Your task to perform on an android device: What's the news? Image 0: 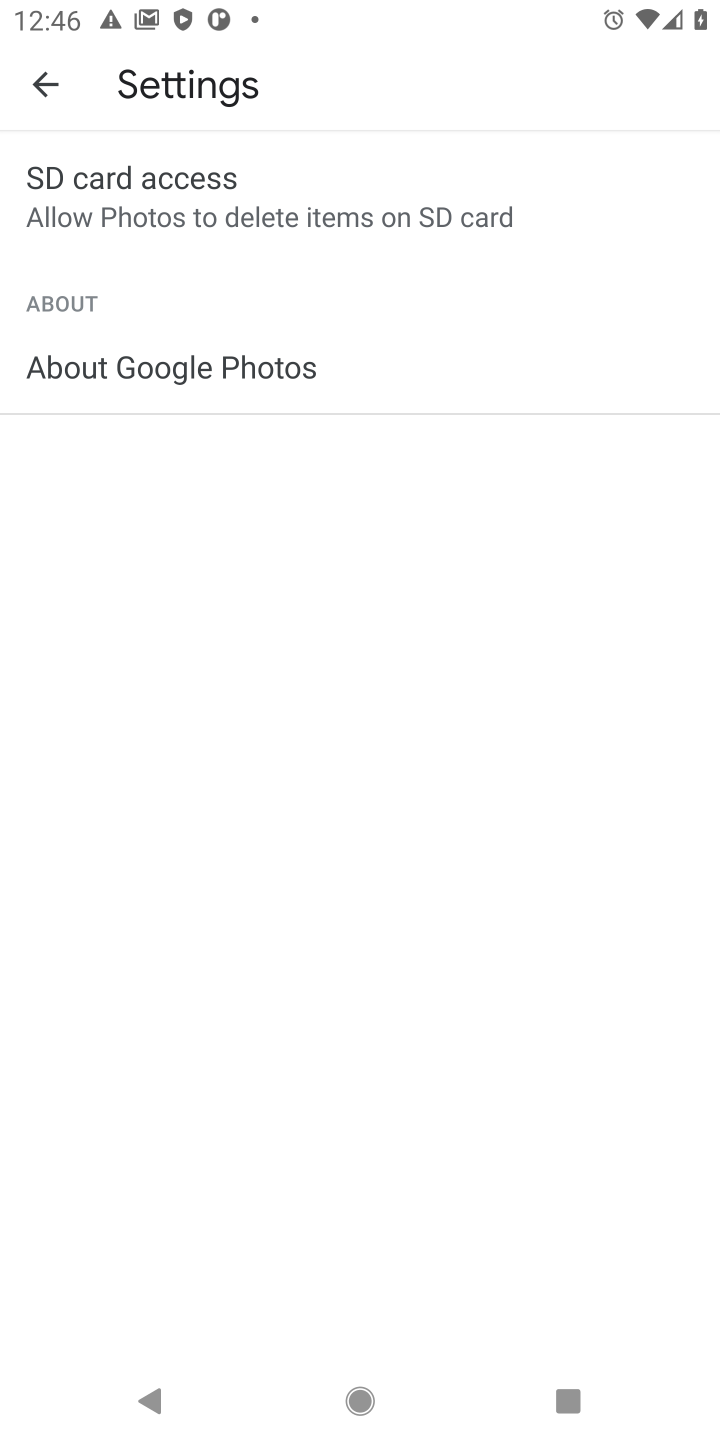
Step 0: press home button
Your task to perform on an android device: What's the news? Image 1: 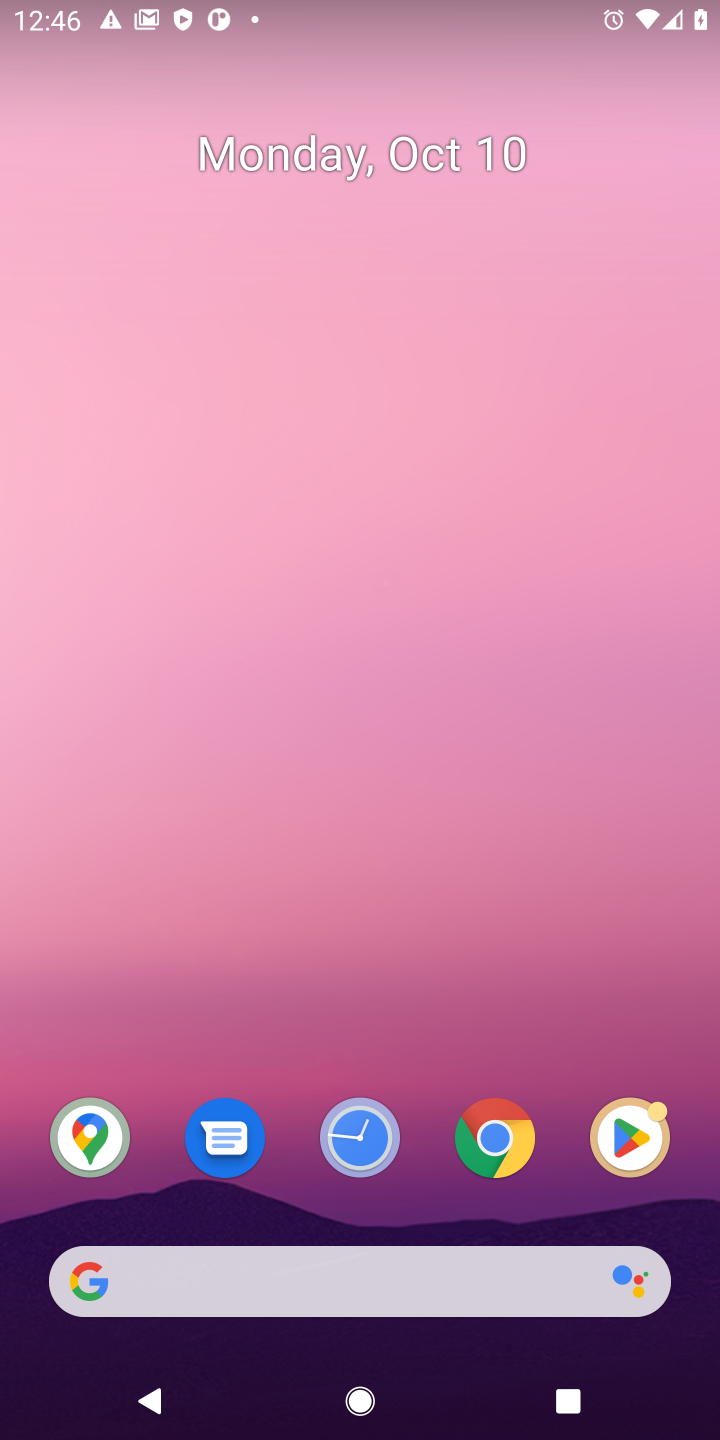
Step 1: drag from (398, 945) to (320, 44)
Your task to perform on an android device: What's the news? Image 2: 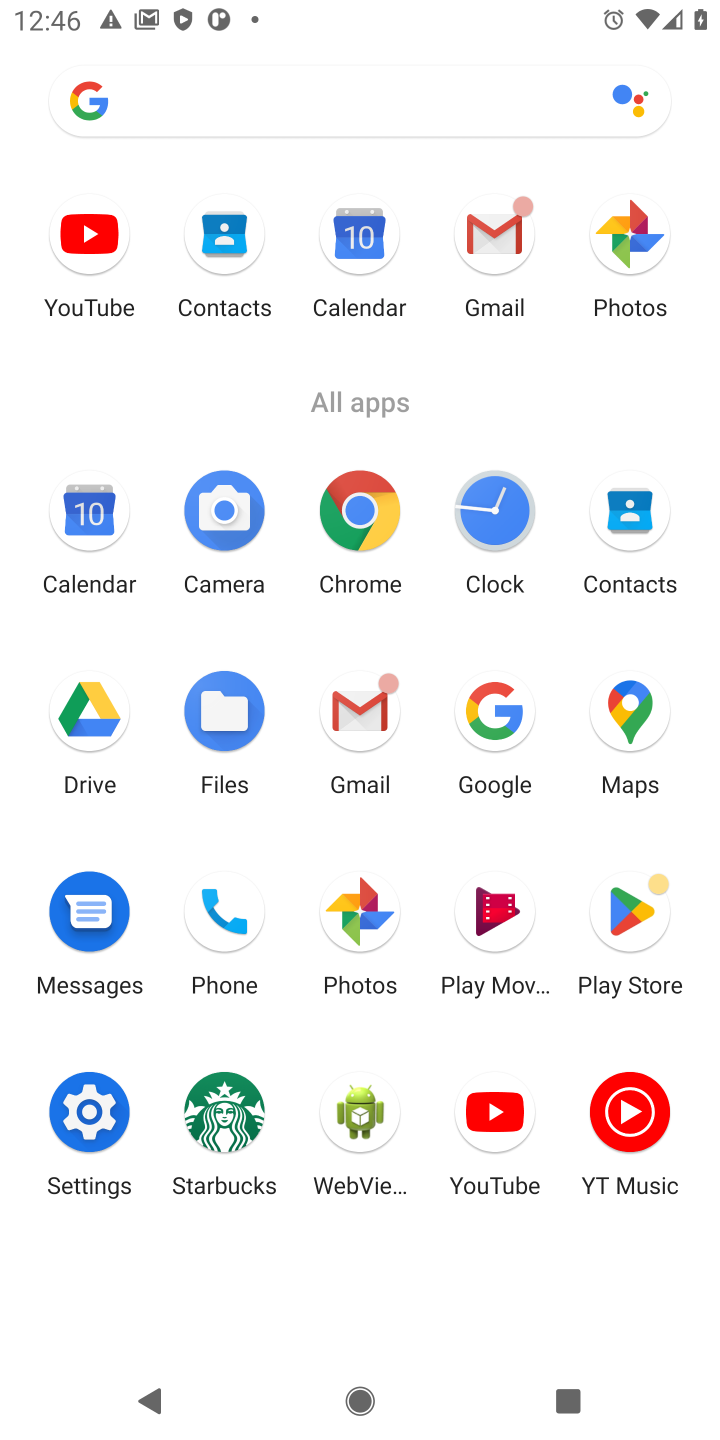
Step 2: click (385, 537)
Your task to perform on an android device: What's the news? Image 3: 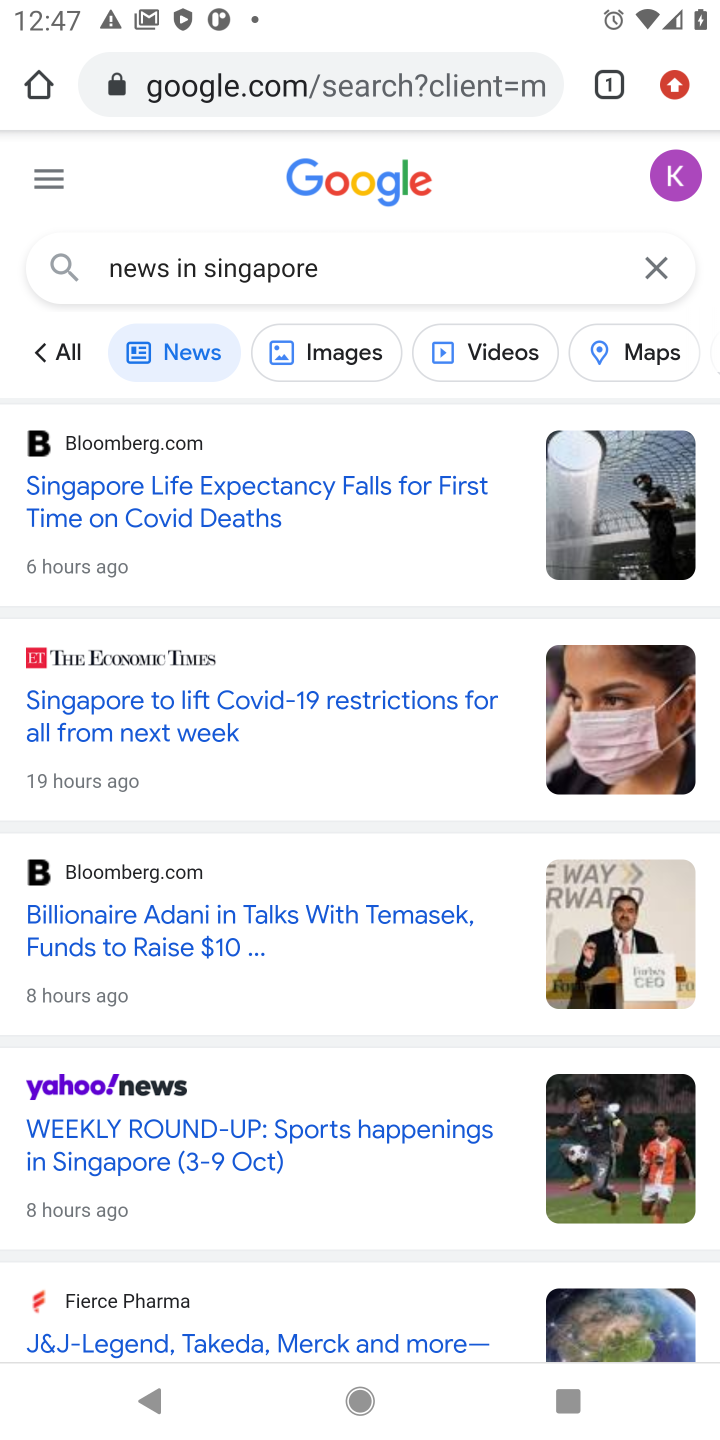
Step 3: click (655, 271)
Your task to perform on an android device: What's the news? Image 4: 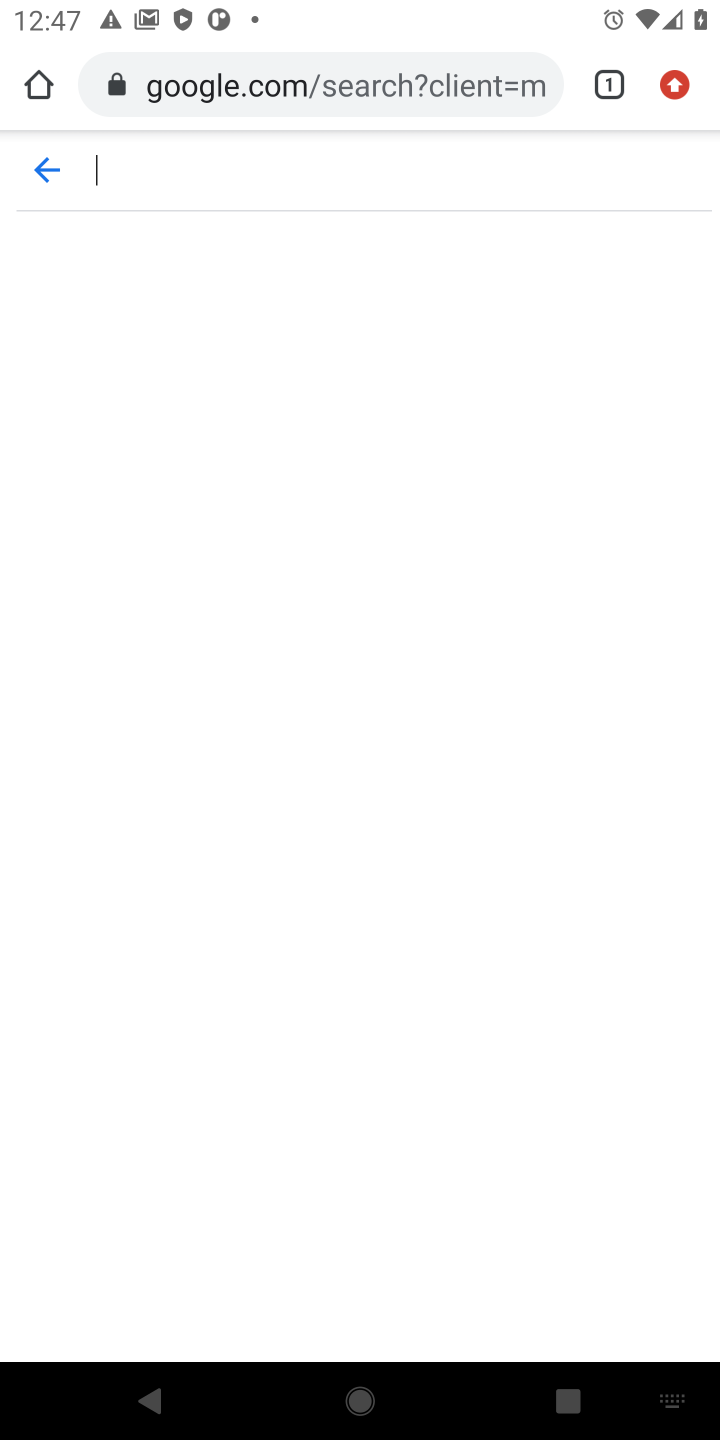
Step 4: click (44, 168)
Your task to perform on an android device: What's the news? Image 5: 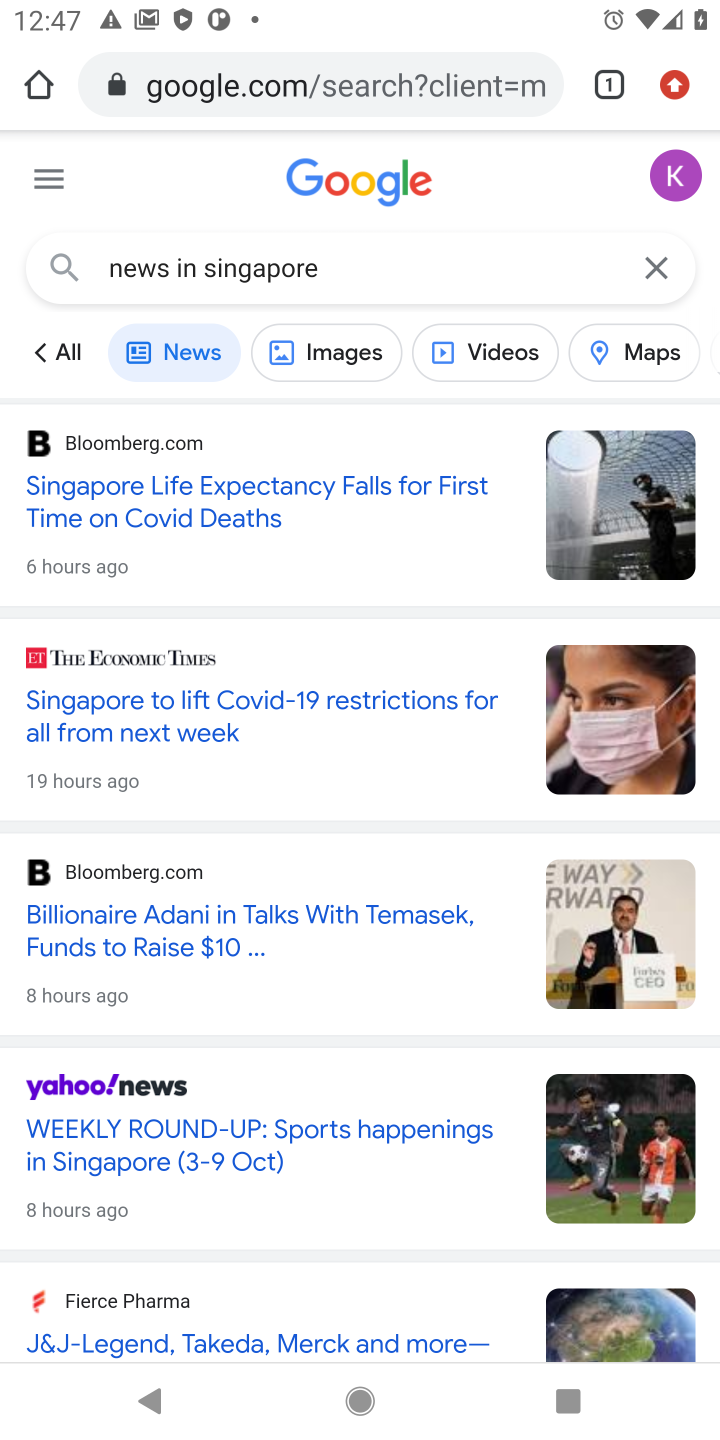
Step 5: click (326, 182)
Your task to perform on an android device: What's the news? Image 6: 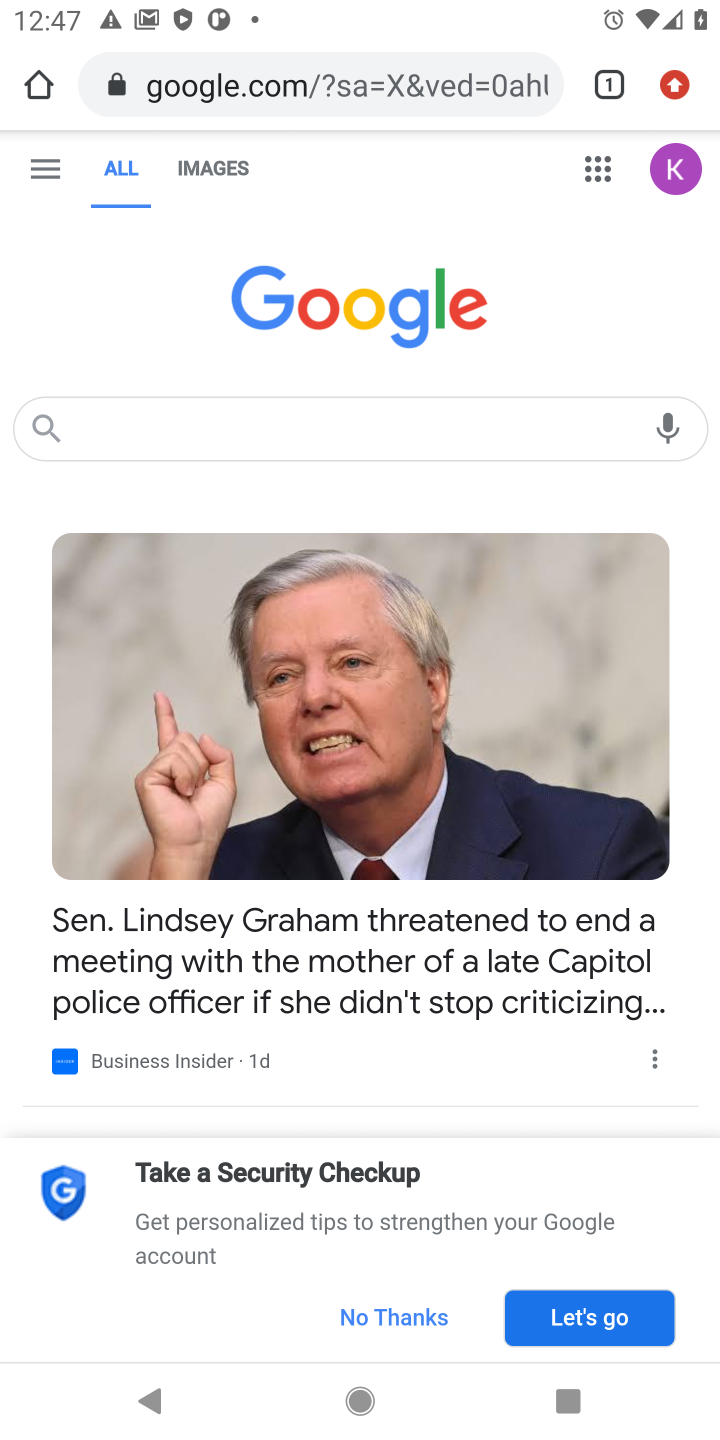
Step 6: task complete